Your task to perform on an android device: turn on showing notifications on the lock screen Image 0: 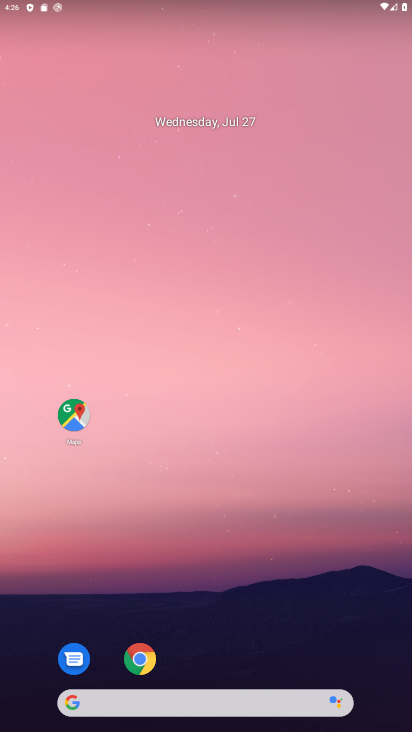
Step 0: drag from (302, 602) to (248, 164)
Your task to perform on an android device: turn on showing notifications on the lock screen Image 1: 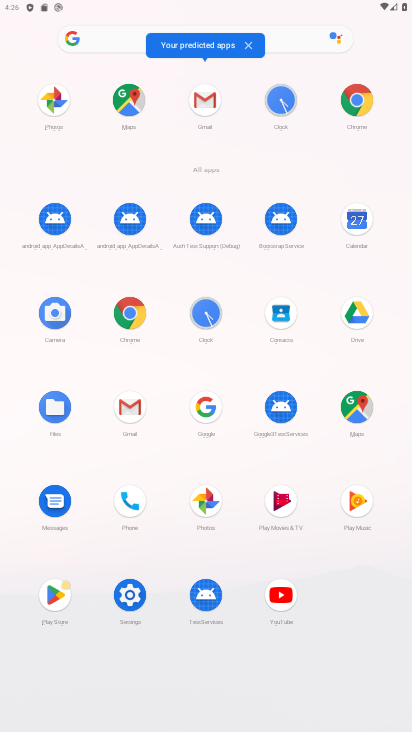
Step 1: click (136, 599)
Your task to perform on an android device: turn on showing notifications on the lock screen Image 2: 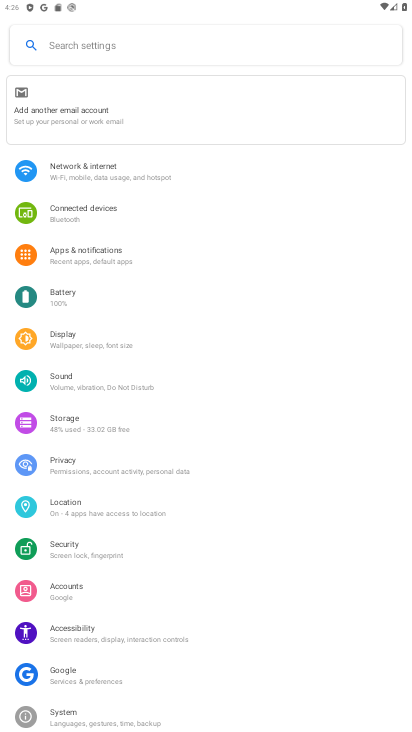
Step 2: click (110, 249)
Your task to perform on an android device: turn on showing notifications on the lock screen Image 3: 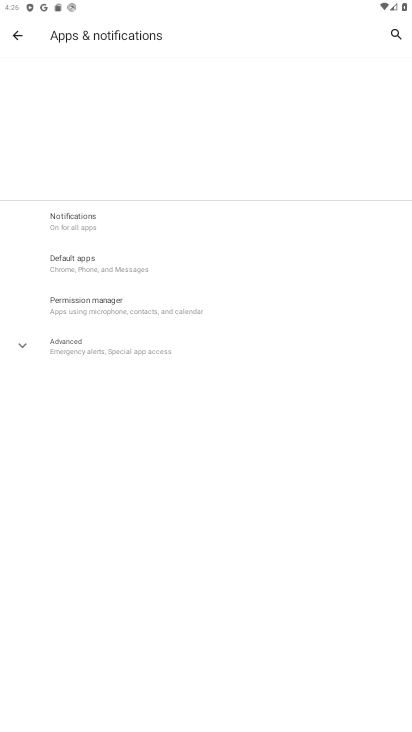
Step 3: click (119, 223)
Your task to perform on an android device: turn on showing notifications on the lock screen Image 4: 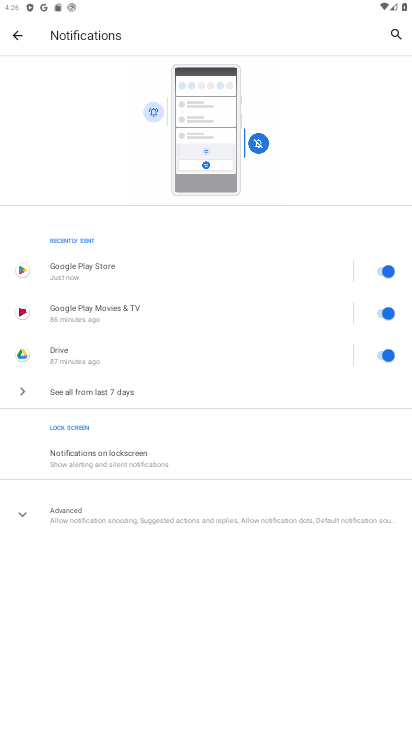
Step 4: click (104, 468)
Your task to perform on an android device: turn on showing notifications on the lock screen Image 5: 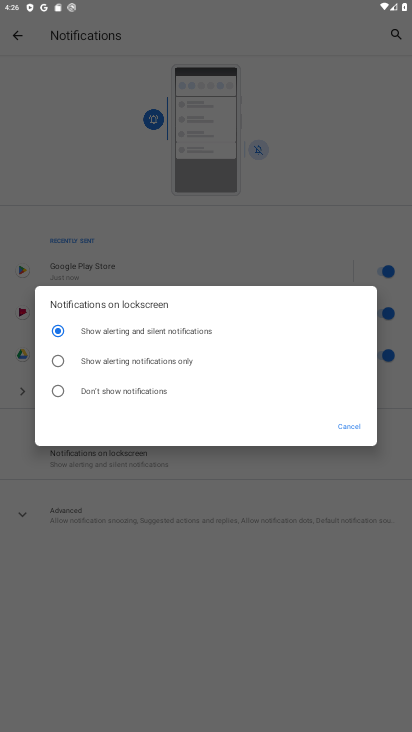
Step 5: click (105, 329)
Your task to perform on an android device: turn on showing notifications on the lock screen Image 6: 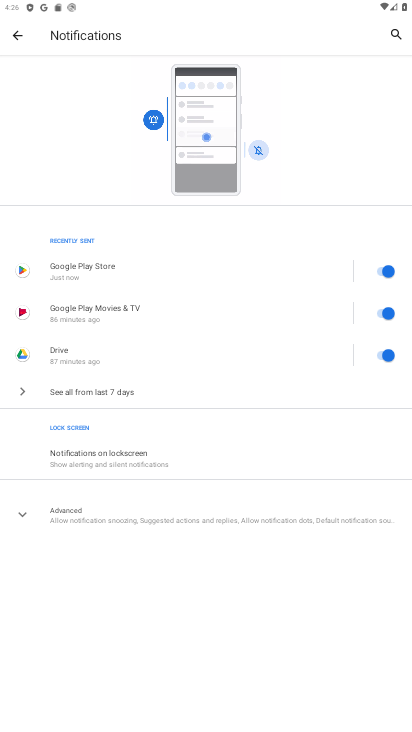
Step 6: task complete